Your task to perform on an android device: turn on sleep mode Image 0: 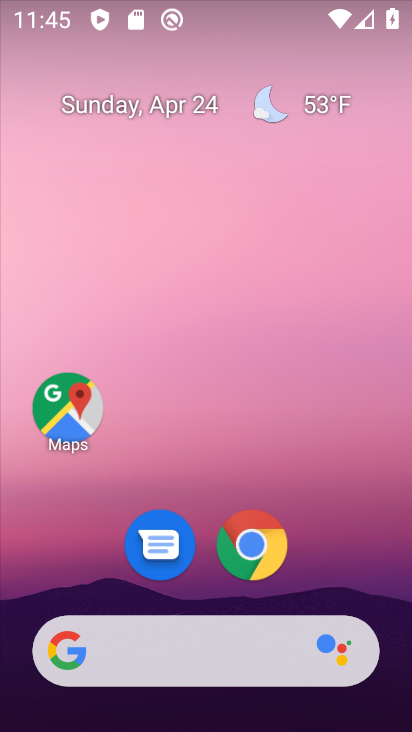
Step 0: drag from (221, 612) to (291, 253)
Your task to perform on an android device: turn on sleep mode Image 1: 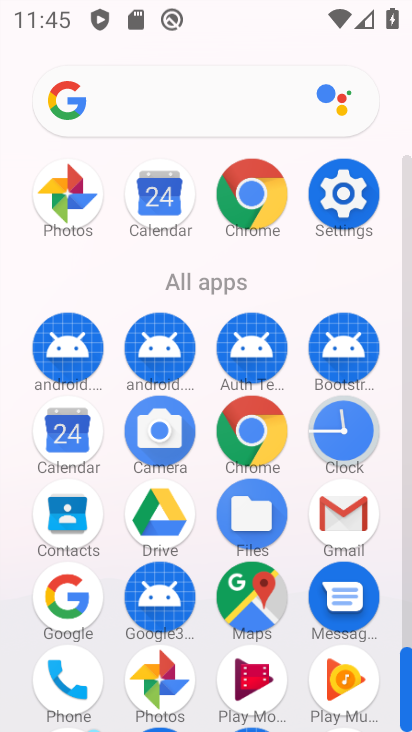
Step 1: click (358, 195)
Your task to perform on an android device: turn on sleep mode Image 2: 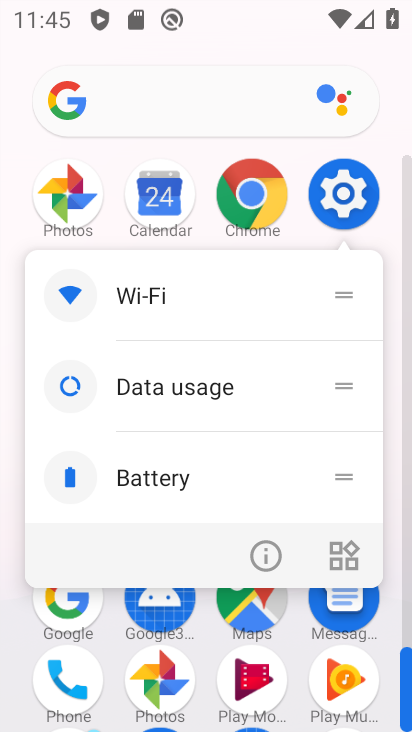
Step 2: click (349, 186)
Your task to perform on an android device: turn on sleep mode Image 3: 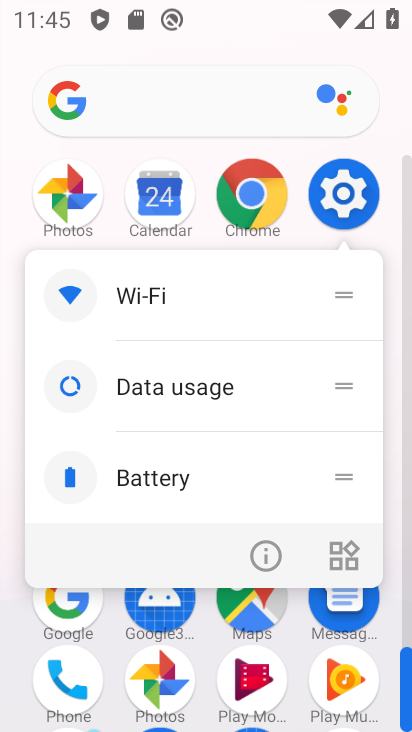
Step 3: click (355, 196)
Your task to perform on an android device: turn on sleep mode Image 4: 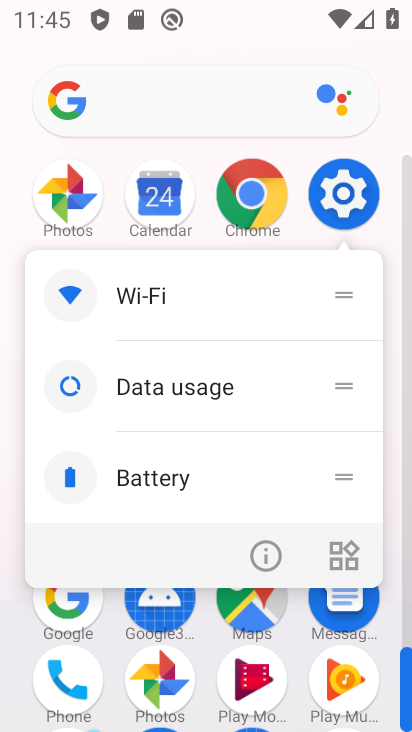
Step 4: click (368, 209)
Your task to perform on an android device: turn on sleep mode Image 5: 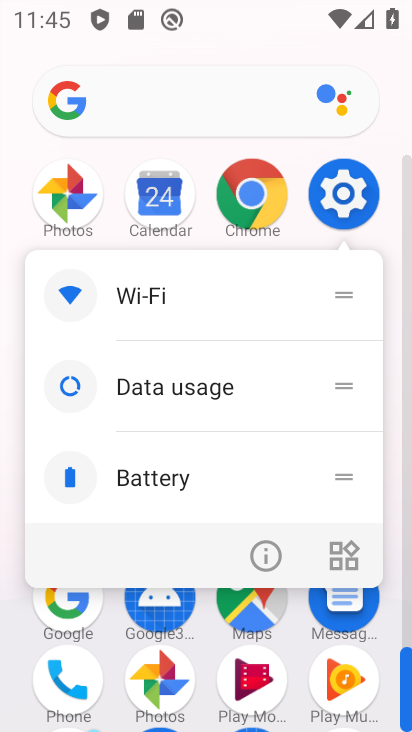
Step 5: click (364, 211)
Your task to perform on an android device: turn on sleep mode Image 6: 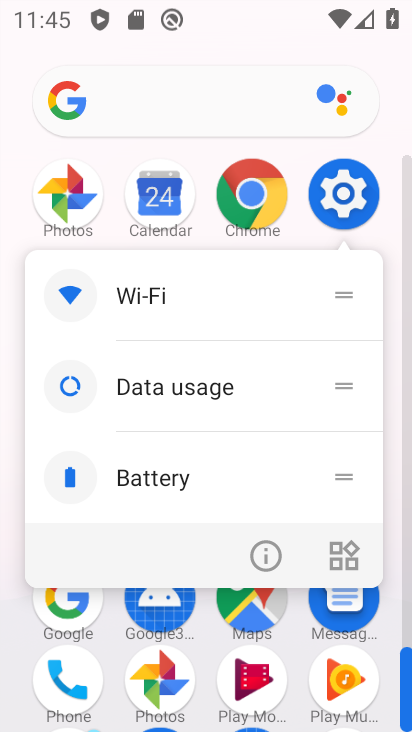
Step 6: click (357, 218)
Your task to perform on an android device: turn on sleep mode Image 7: 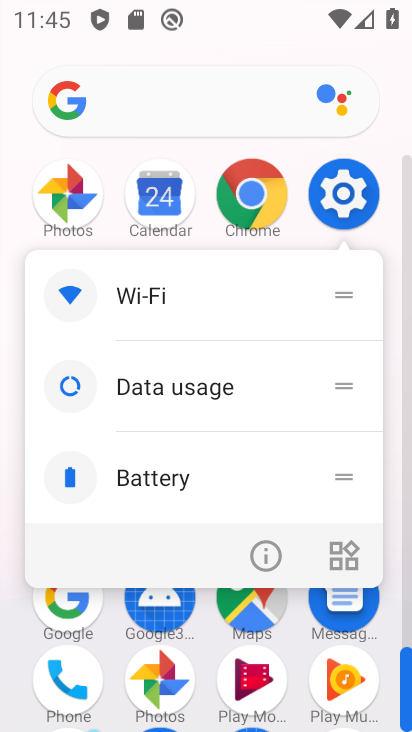
Step 7: click (339, 188)
Your task to perform on an android device: turn on sleep mode Image 8: 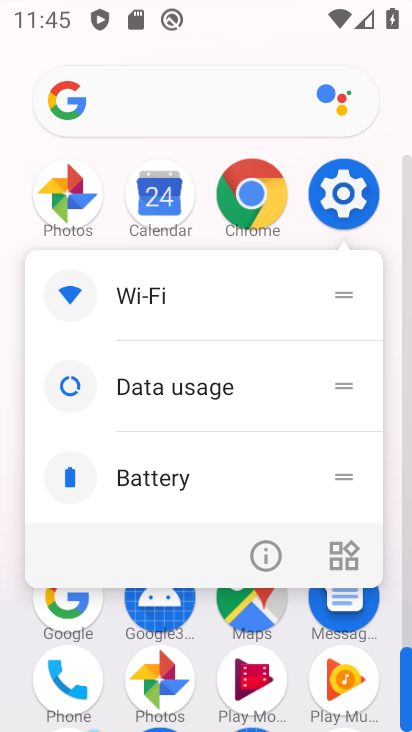
Step 8: click (350, 181)
Your task to perform on an android device: turn on sleep mode Image 9: 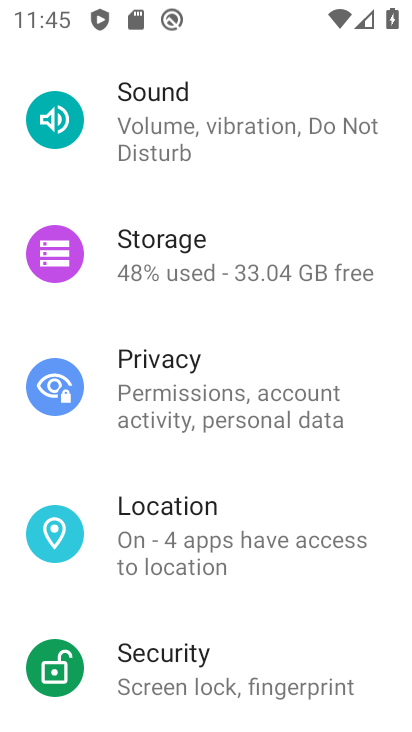
Step 9: drag from (237, 206) to (246, 596)
Your task to perform on an android device: turn on sleep mode Image 10: 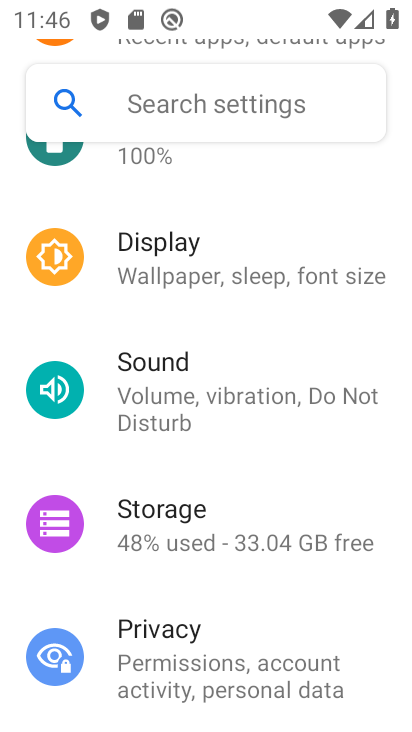
Step 10: click (230, 300)
Your task to perform on an android device: turn on sleep mode Image 11: 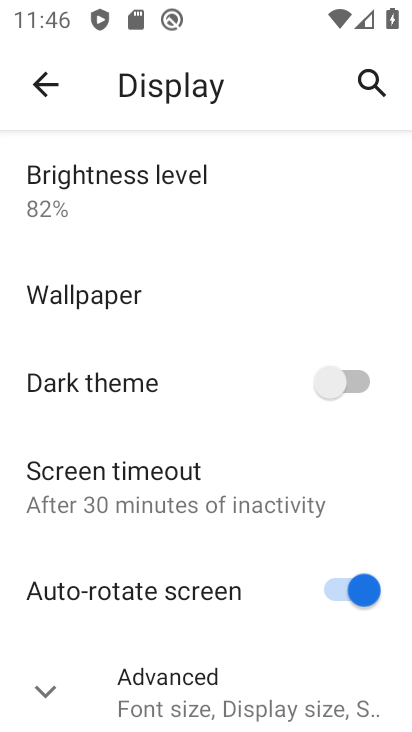
Step 11: drag from (234, 564) to (312, 207)
Your task to perform on an android device: turn on sleep mode Image 12: 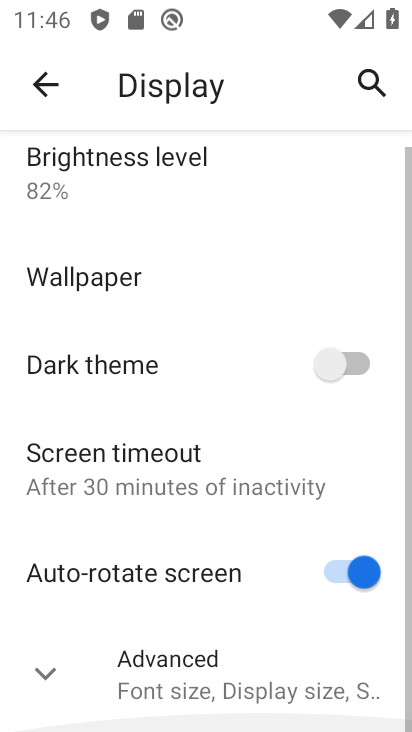
Step 12: click (245, 667)
Your task to perform on an android device: turn on sleep mode Image 13: 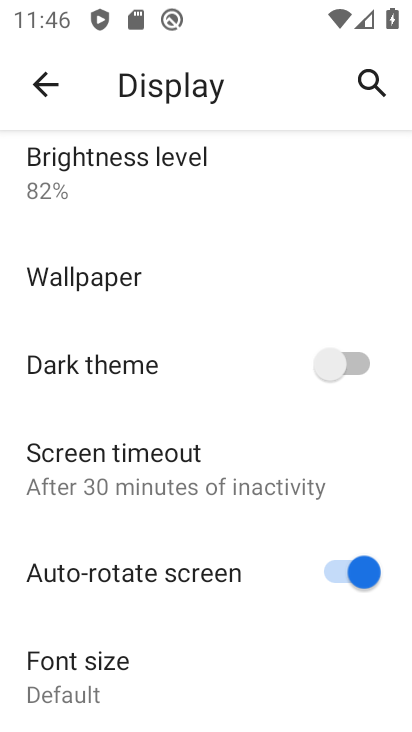
Step 13: task complete